Your task to perform on an android device: empty trash in google photos Image 0: 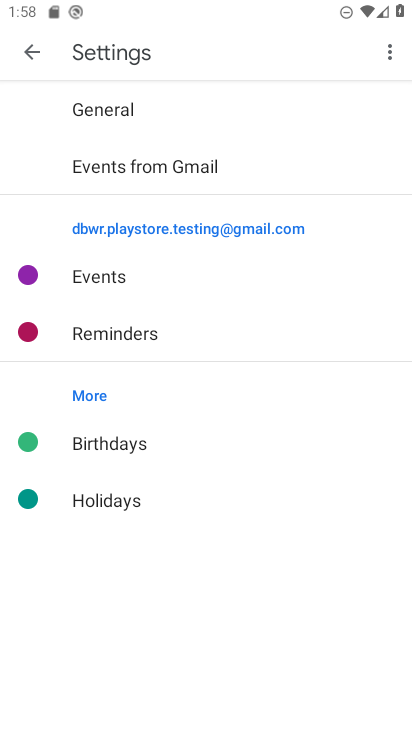
Step 0: press home button
Your task to perform on an android device: empty trash in google photos Image 1: 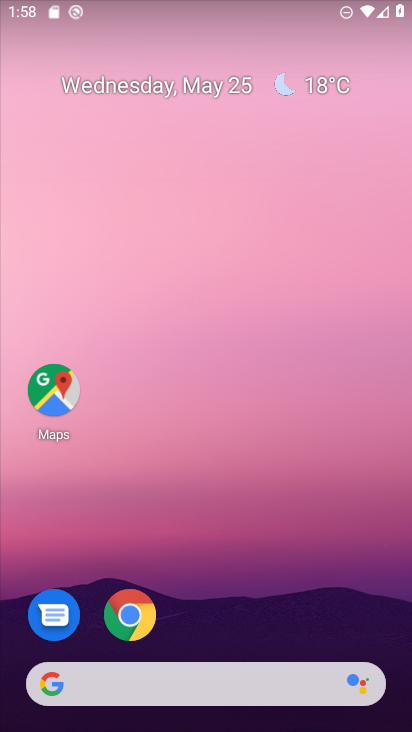
Step 1: drag from (243, 536) to (268, 16)
Your task to perform on an android device: empty trash in google photos Image 2: 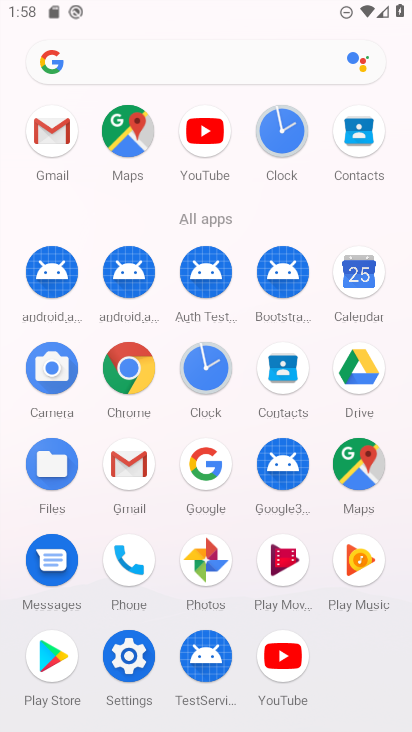
Step 2: click (197, 550)
Your task to perform on an android device: empty trash in google photos Image 3: 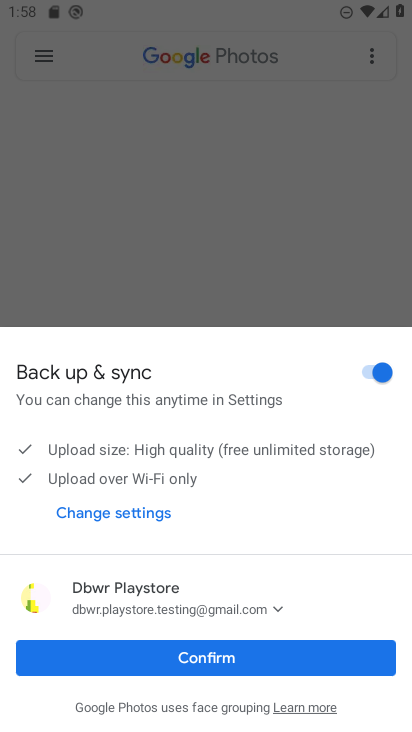
Step 3: click (162, 659)
Your task to perform on an android device: empty trash in google photos Image 4: 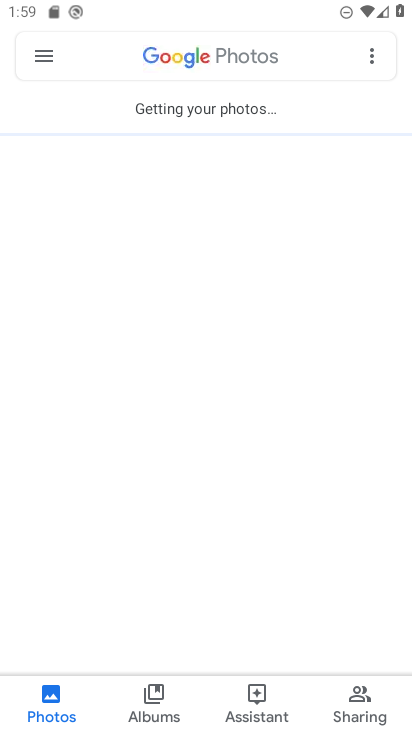
Step 4: click (47, 58)
Your task to perform on an android device: empty trash in google photos Image 5: 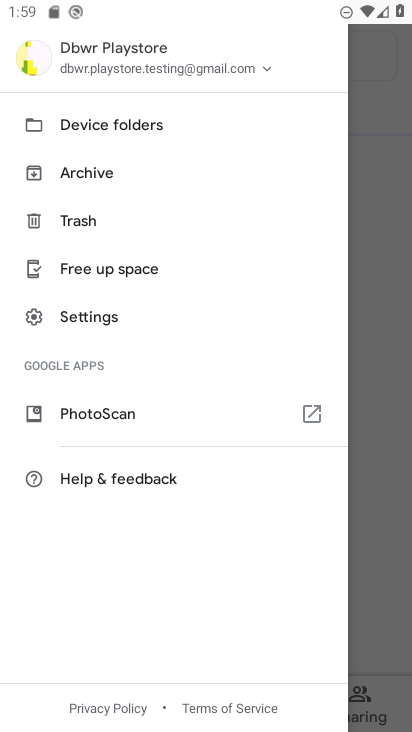
Step 5: click (74, 212)
Your task to perform on an android device: empty trash in google photos Image 6: 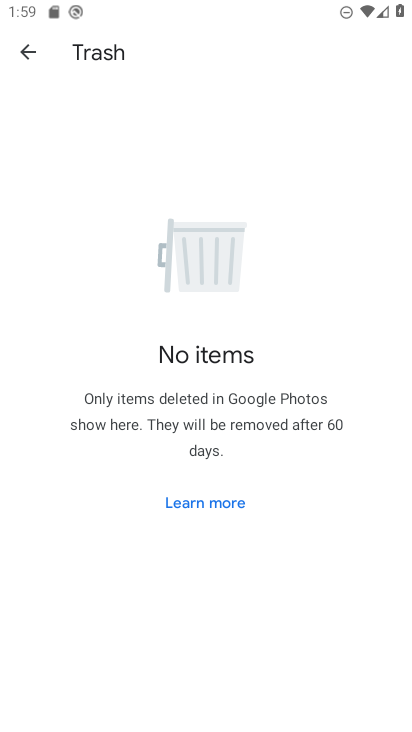
Step 6: task complete